Your task to perform on an android device: add a contact in the contacts app Image 0: 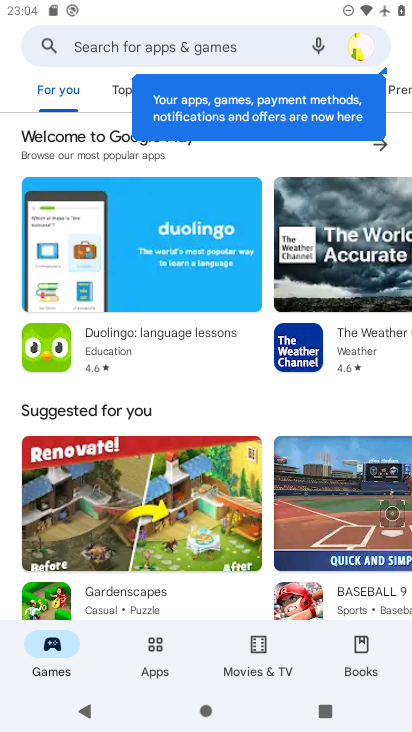
Step 0: press home button
Your task to perform on an android device: add a contact in the contacts app Image 1: 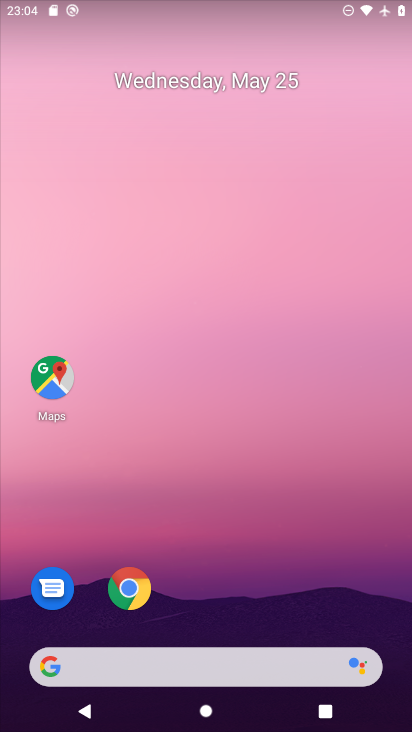
Step 1: drag from (245, 574) to (210, 167)
Your task to perform on an android device: add a contact in the contacts app Image 2: 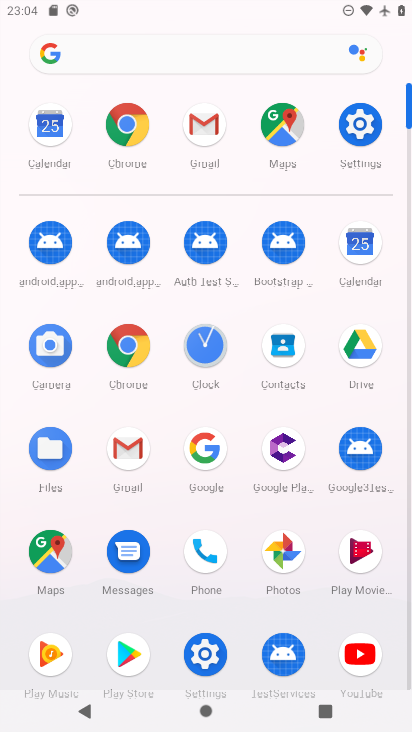
Step 2: click (273, 348)
Your task to perform on an android device: add a contact in the contacts app Image 3: 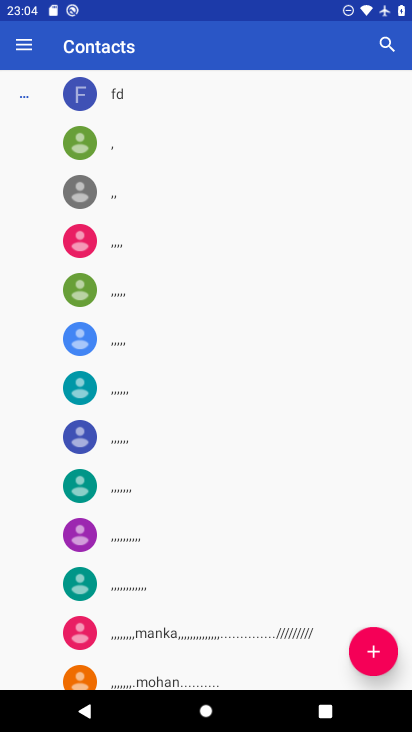
Step 3: click (381, 643)
Your task to perform on an android device: add a contact in the contacts app Image 4: 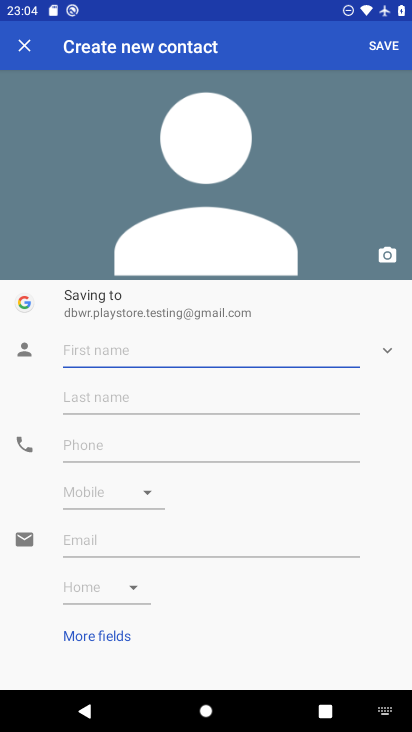
Step 4: click (174, 344)
Your task to perform on an android device: add a contact in the contacts app Image 5: 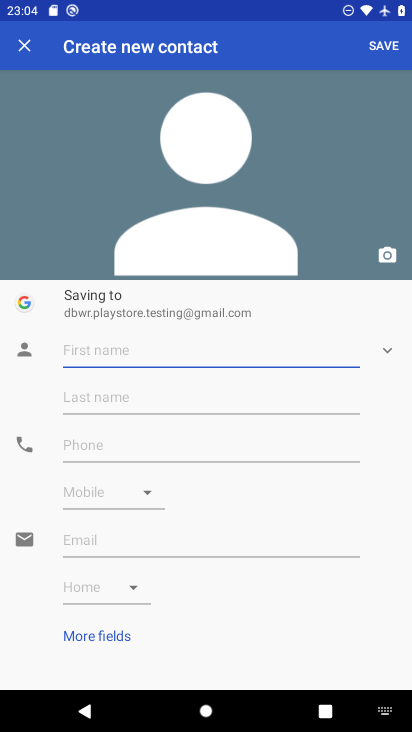
Step 5: type "bhavi"
Your task to perform on an android device: add a contact in the contacts app Image 6: 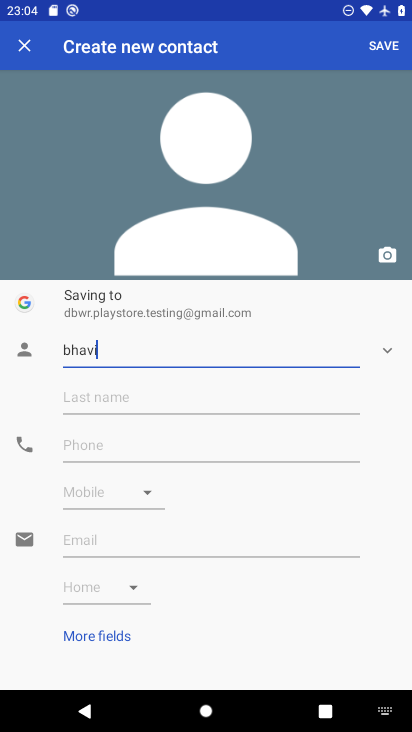
Step 6: click (389, 37)
Your task to perform on an android device: add a contact in the contacts app Image 7: 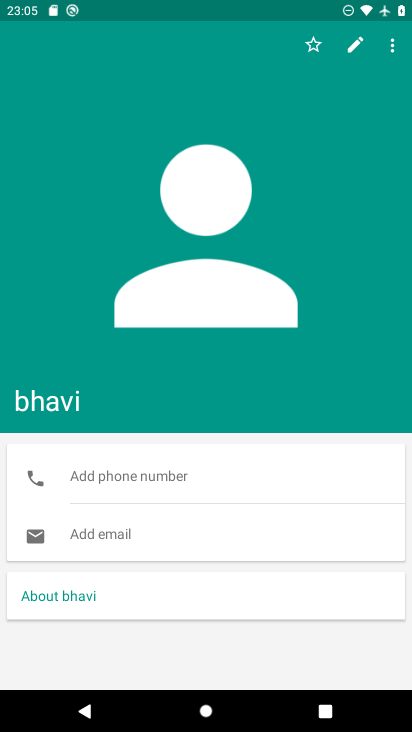
Step 7: task complete